Your task to perform on an android device: Open my contact list Image 0: 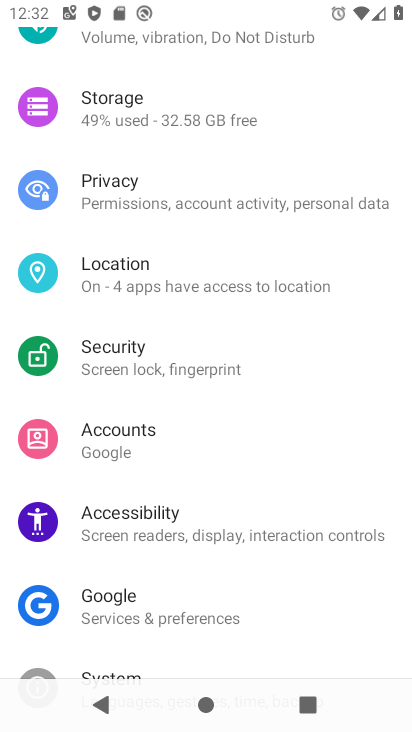
Step 0: press home button
Your task to perform on an android device: Open my contact list Image 1: 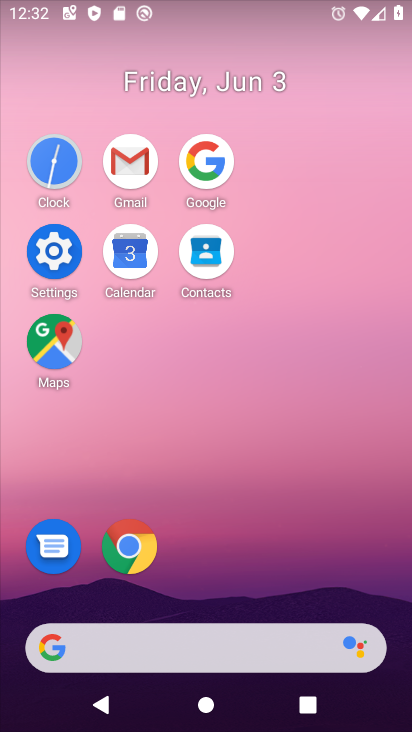
Step 1: click (198, 264)
Your task to perform on an android device: Open my contact list Image 2: 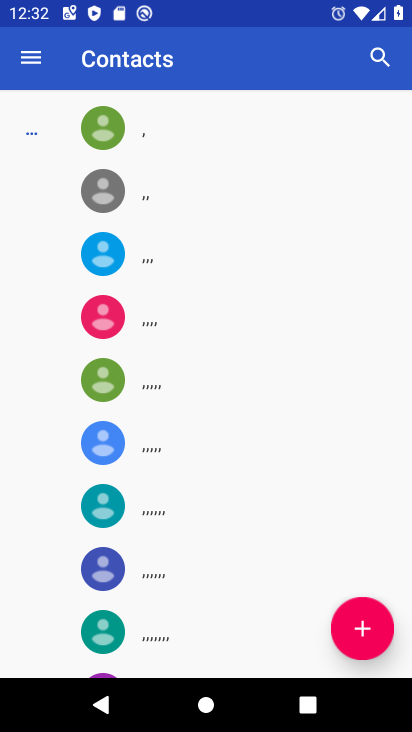
Step 2: task complete